Your task to perform on an android device: Play the new Selena Gomez video on YouTube Image 0: 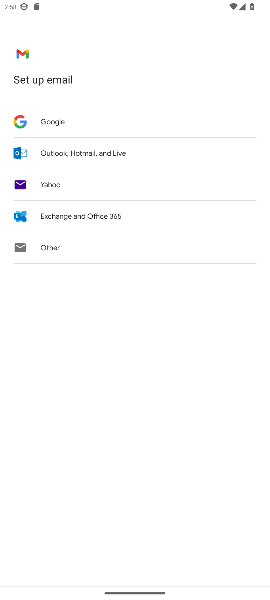
Step 0: press home button
Your task to perform on an android device: Play the new Selena Gomez video on YouTube Image 1: 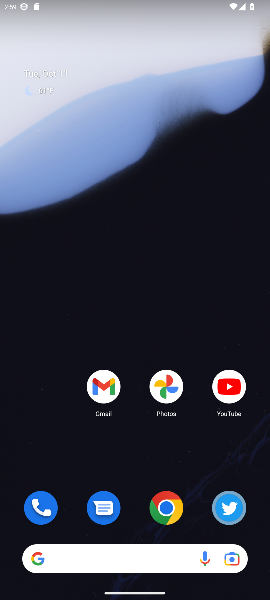
Step 1: click (224, 394)
Your task to perform on an android device: Play the new Selena Gomez video on YouTube Image 2: 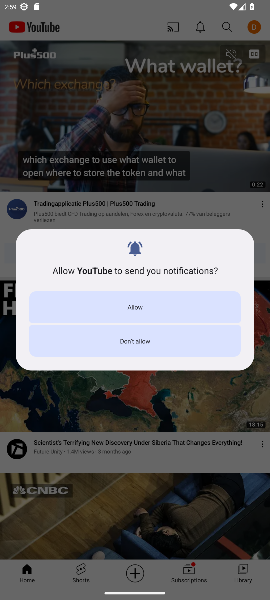
Step 2: click (152, 307)
Your task to perform on an android device: Play the new Selena Gomez video on YouTube Image 3: 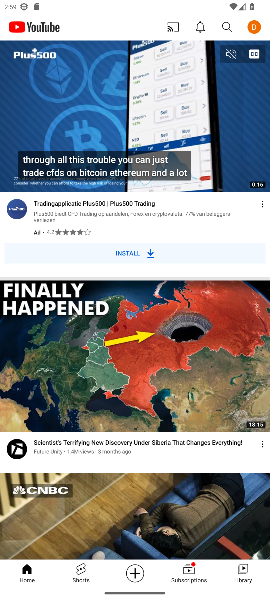
Step 3: click (227, 26)
Your task to perform on an android device: Play the new Selena Gomez video on YouTube Image 4: 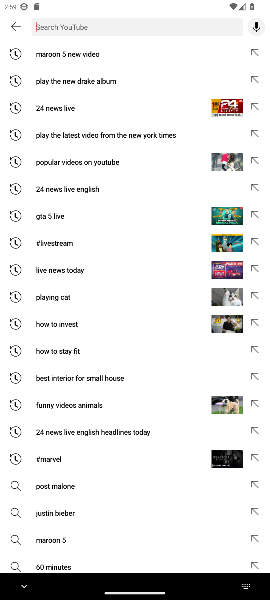
Step 4: type "new Selena Gomez video"
Your task to perform on an android device: Play the new Selena Gomez video on YouTube Image 5: 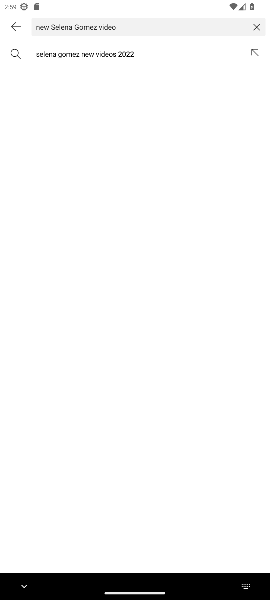
Step 5: press enter
Your task to perform on an android device: Play the new Selena Gomez video on YouTube Image 6: 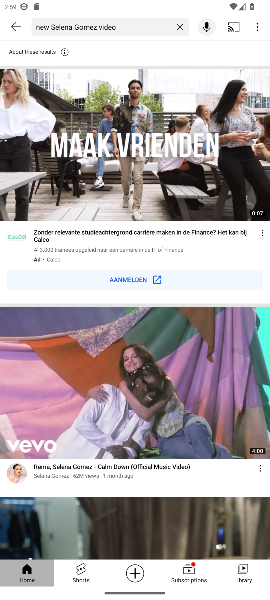
Step 6: click (167, 425)
Your task to perform on an android device: Play the new Selena Gomez video on YouTube Image 7: 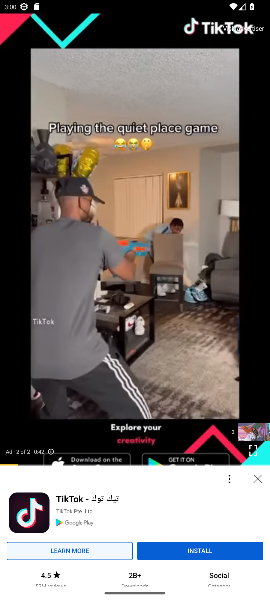
Step 7: click (258, 478)
Your task to perform on an android device: Play the new Selena Gomez video on YouTube Image 8: 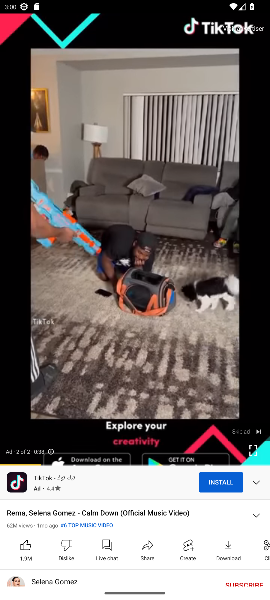
Step 8: click (243, 432)
Your task to perform on an android device: Play the new Selena Gomez video on YouTube Image 9: 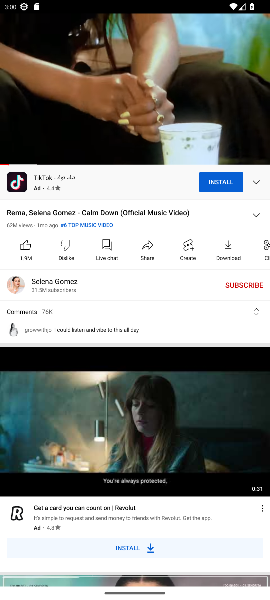
Step 9: task complete